Your task to perform on an android device: turn on improve location accuracy Image 0: 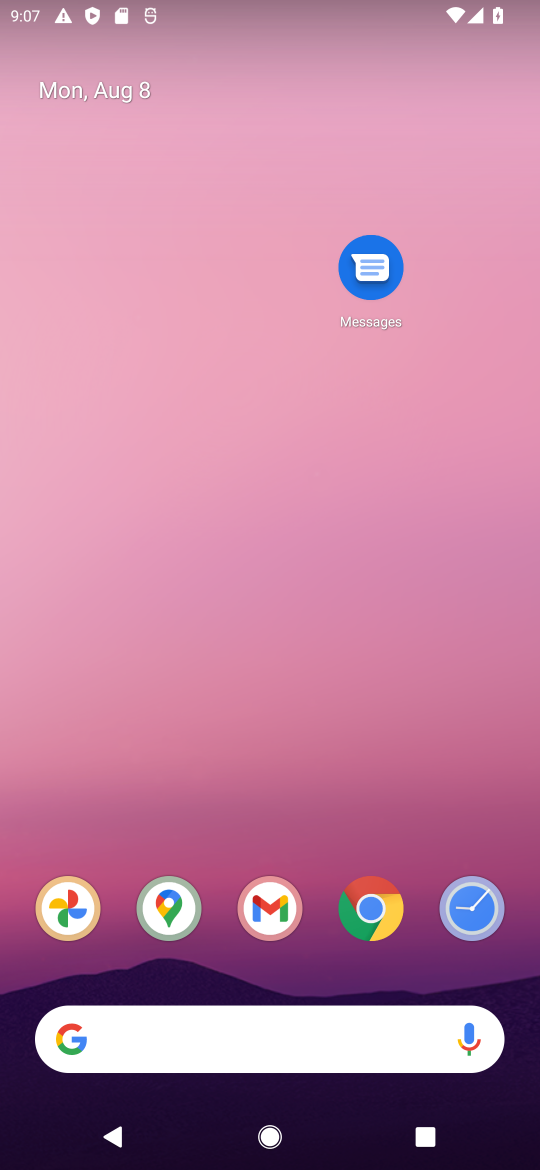
Step 0: drag from (270, 841) to (313, 250)
Your task to perform on an android device: turn on improve location accuracy Image 1: 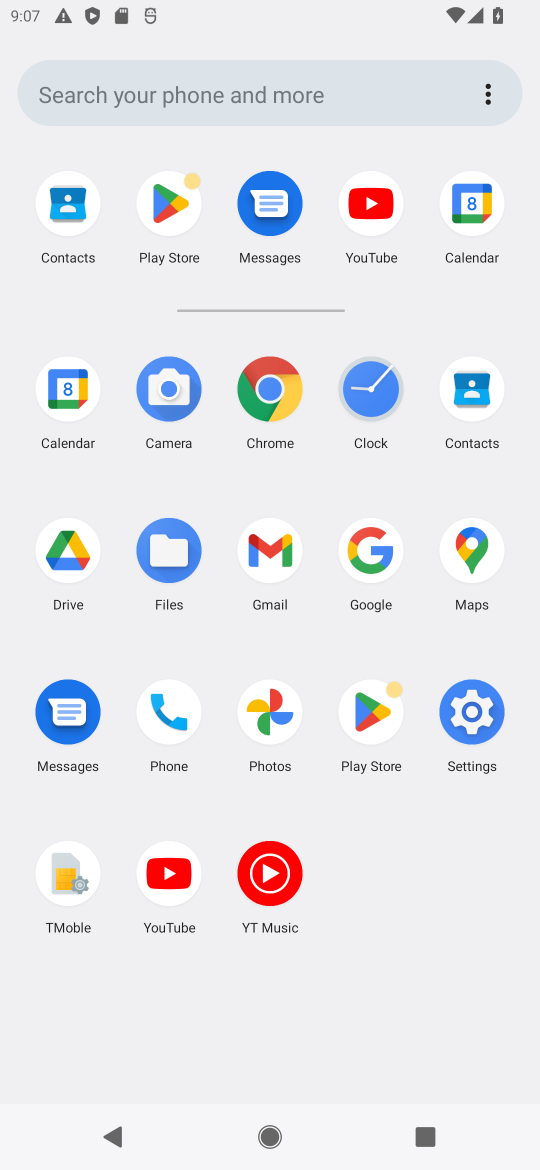
Step 1: click (442, 693)
Your task to perform on an android device: turn on improve location accuracy Image 2: 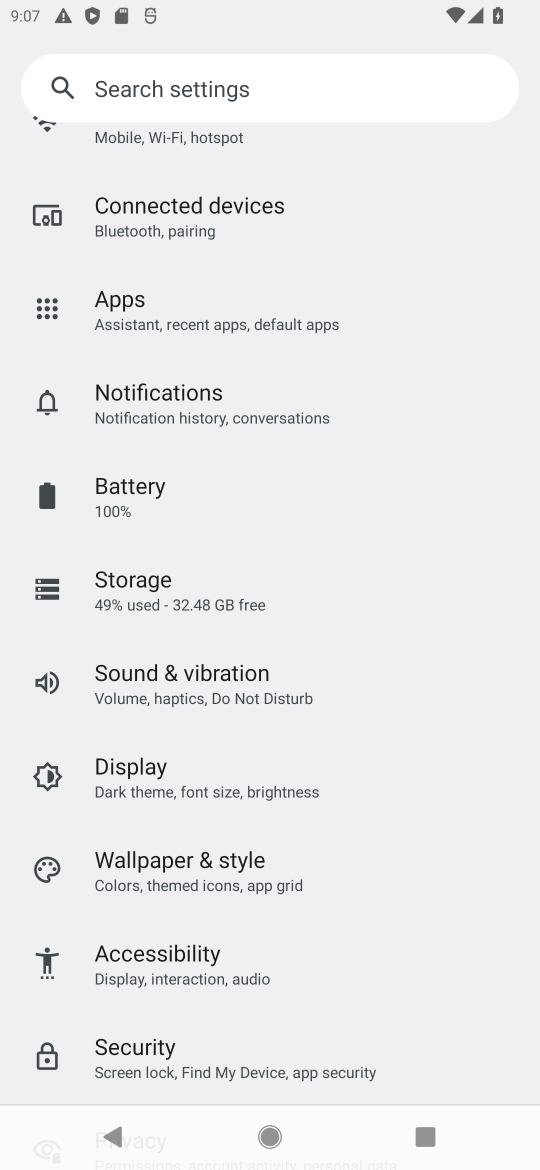
Step 2: drag from (131, 934) to (307, 198)
Your task to perform on an android device: turn on improve location accuracy Image 3: 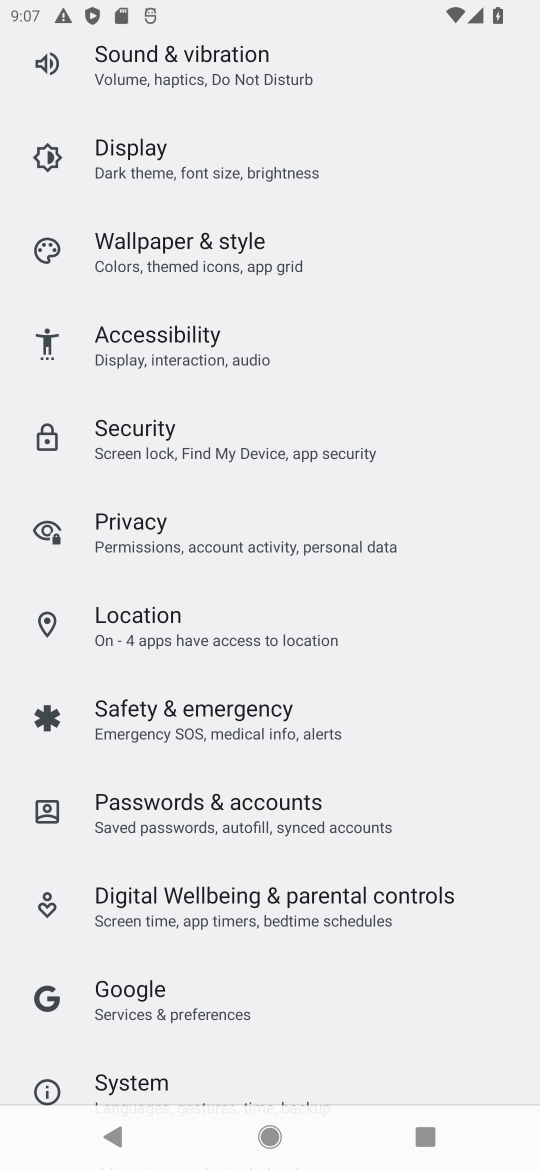
Step 3: click (171, 614)
Your task to perform on an android device: turn on improve location accuracy Image 4: 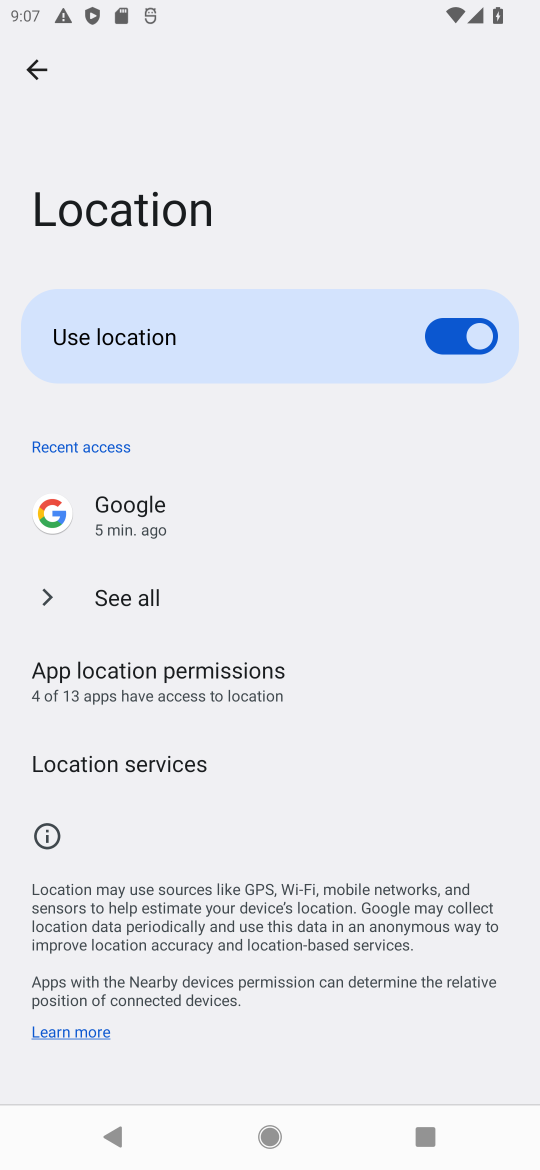
Step 4: click (89, 777)
Your task to perform on an android device: turn on improve location accuracy Image 5: 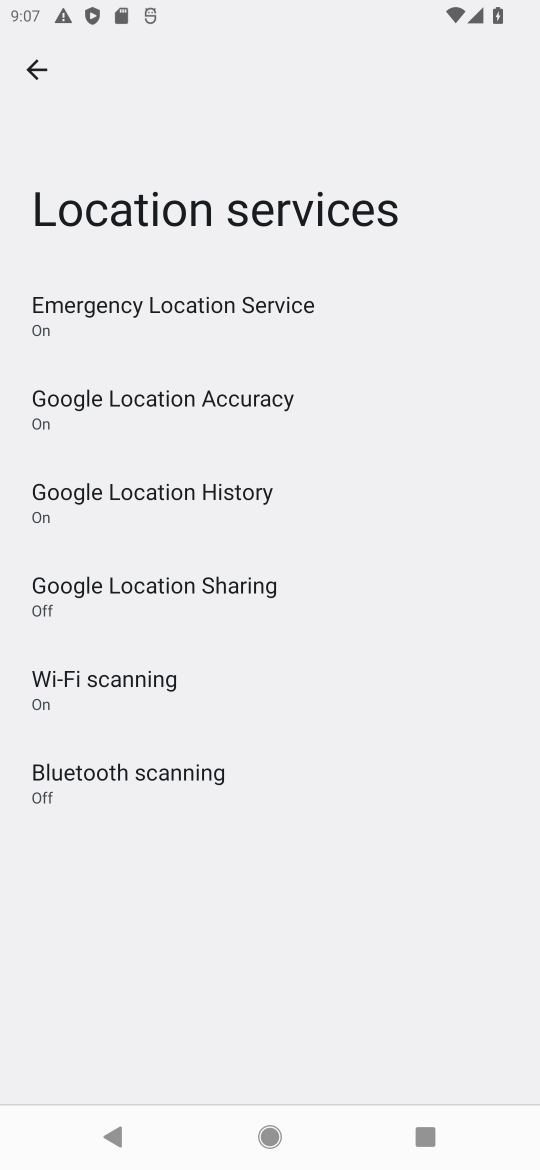
Step 5: click (134, 404)
Your task to perform on an android device: turn on improve location accuracy Image 6: 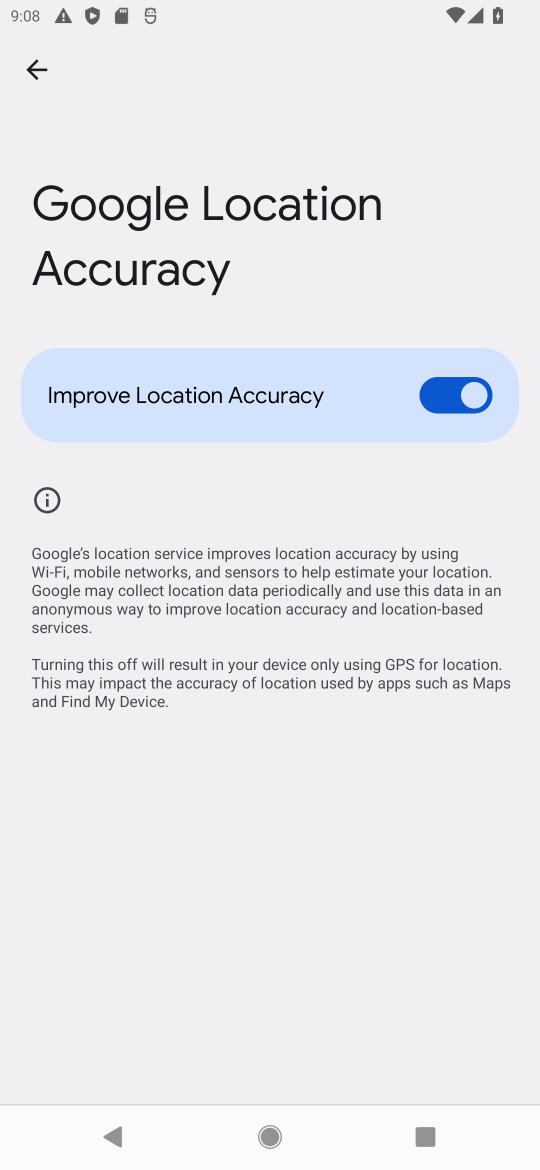
Step 6: task complete